Your task to perform on an android device: Search for Italian restaurants on Maps Image 0: 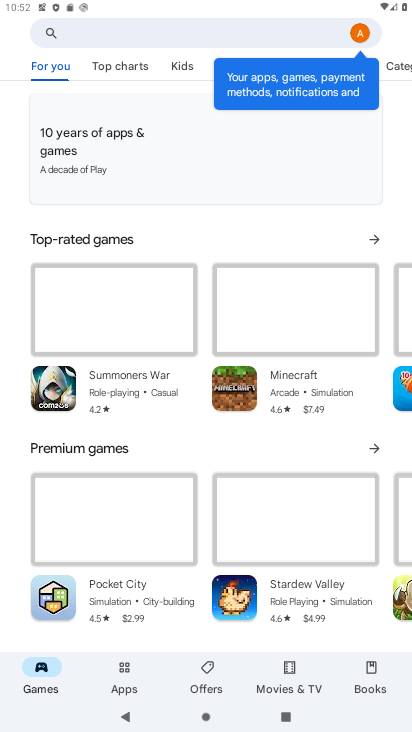
Step 0: press home button
Your task to perform on an android device: Search for Italian restaurants on Maps Image 1: 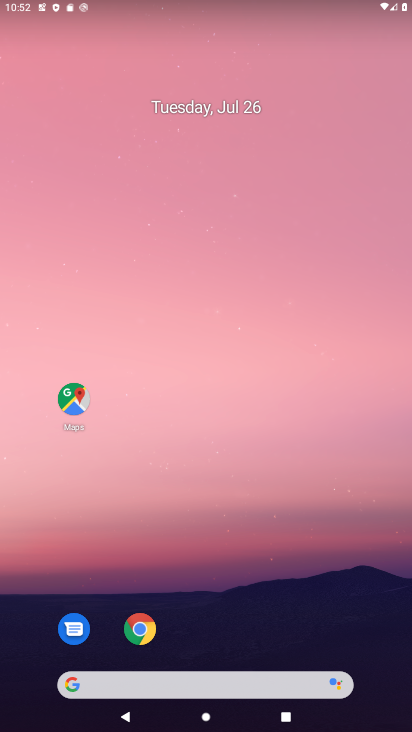
Step 1: click (68, 407)
Your task to perform on an android device: Search for Italian restaurants on Maps Image 2: 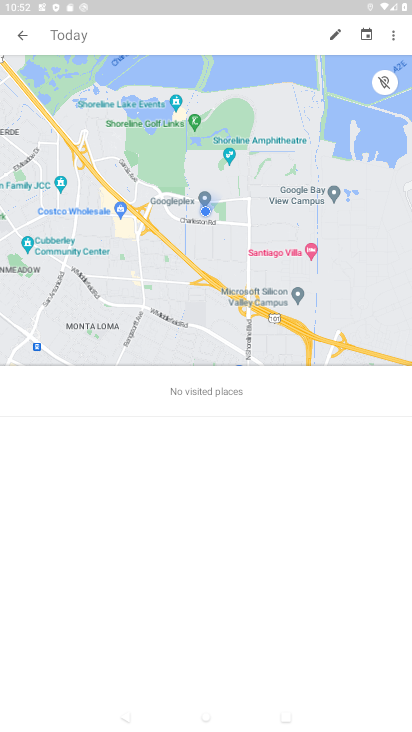
Step 2: click (26, 37)
Your task to perform on an android device: Search for Italian restaurants on Maps Image 3: 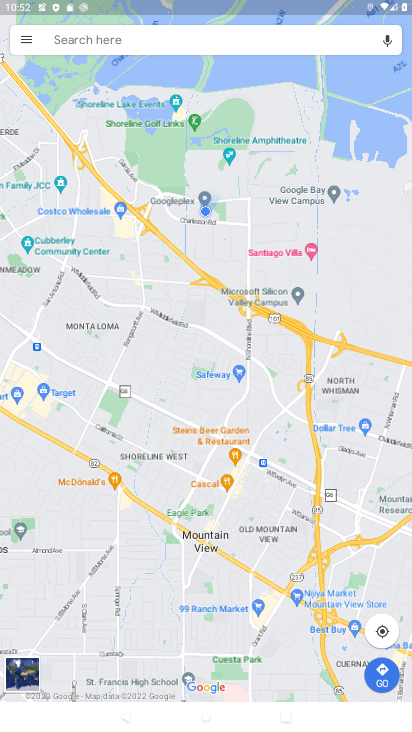
Step 3: click (79, 37)
Your task to perform on an android device: Search for Italian restaurants on Maps Image 4: 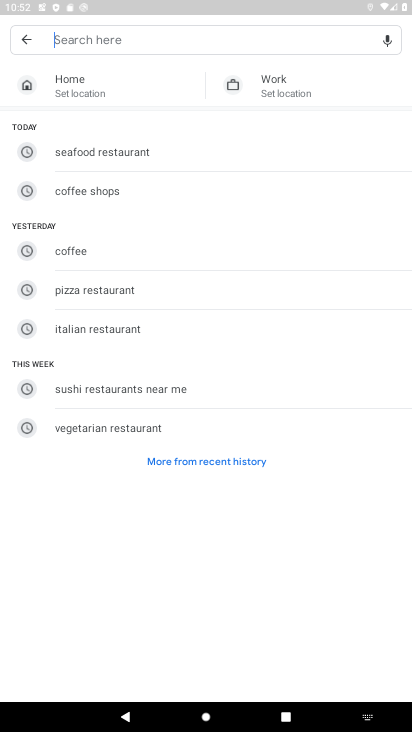
Step 4: click (116, 325)
Your task to perform on an android device: Search for Italian restaurants on Maps Image 5: 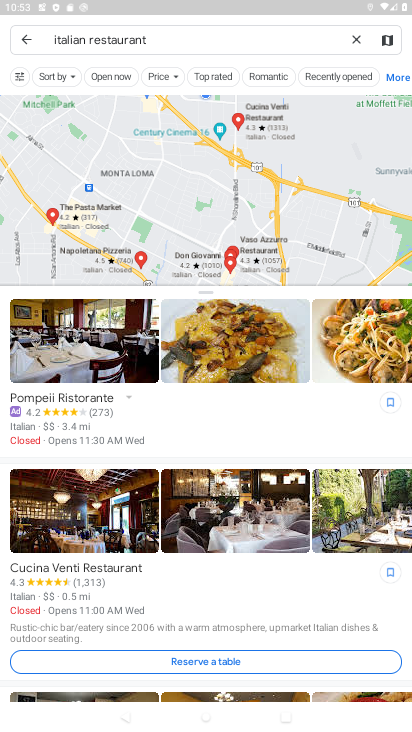
Step 5: task complete